Your task to perform on an android device: clear history in the chrome app Image 0: 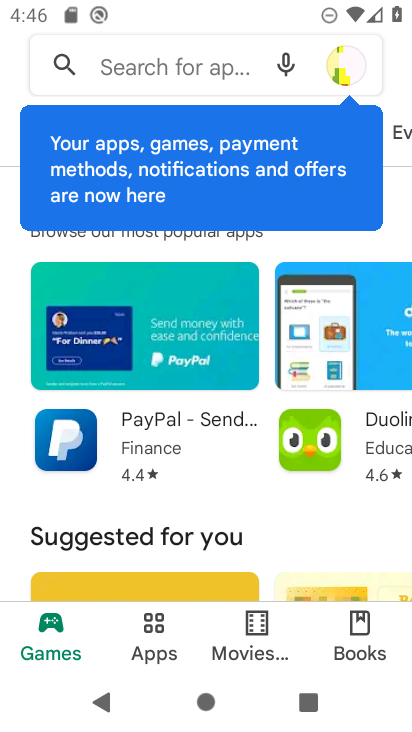
Step 0: press home button
Your task to perform on an android device: clear history in the chrome app Image 1: 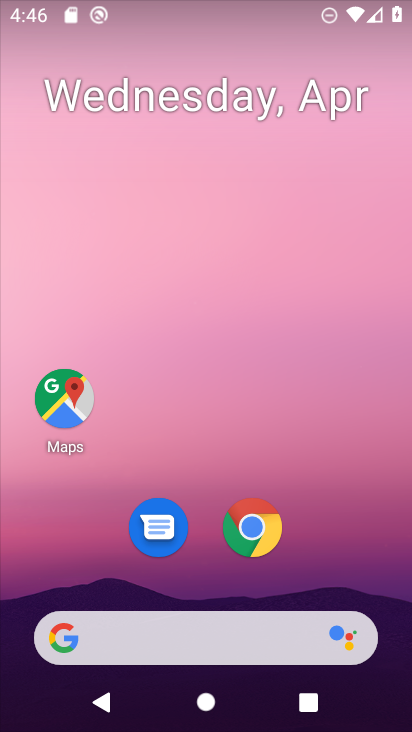
Step 1: click (257, 537)
Your task to perform on an android device: clear history in the chrome app Image 2: 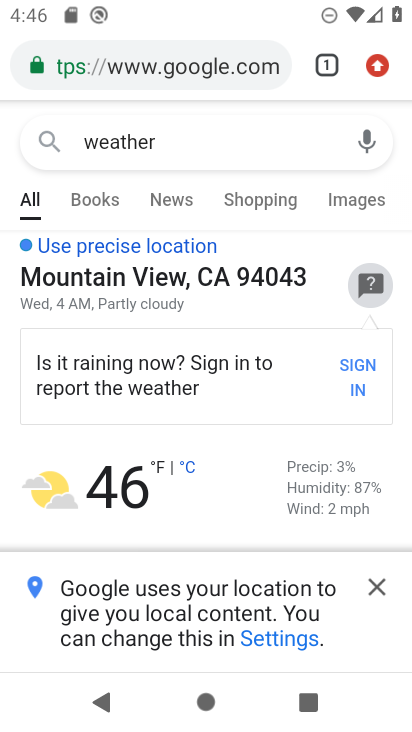
Step 2: click (376, 70)
Your task to perform on an android device: clear history in the chrome app Image 3: 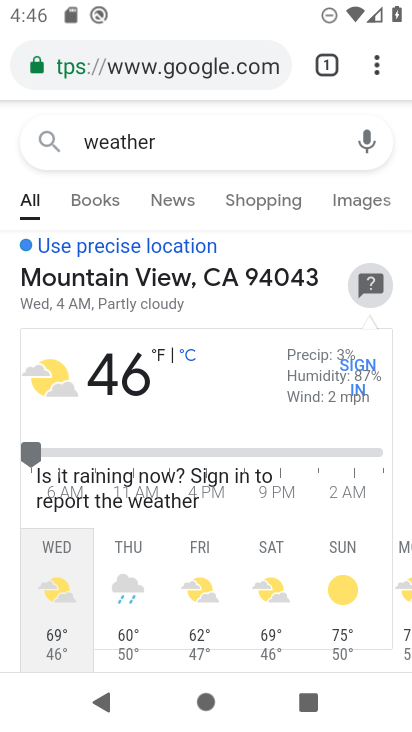
Step 3: click (377, 61)
Your task to perform on an android device: clear history in the chrome app Image 4: 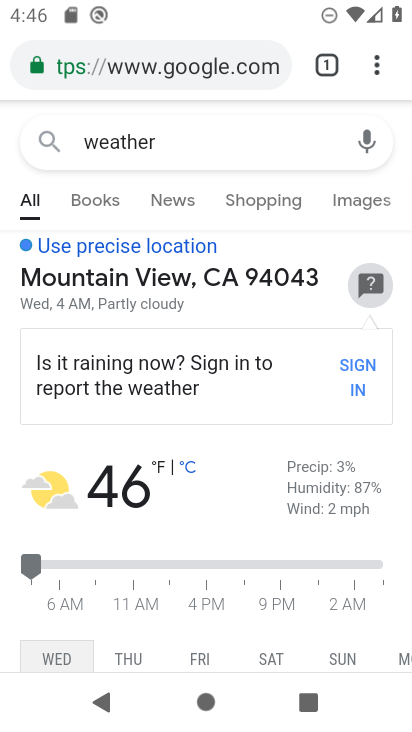
Step 4: click (378, 67)
Your task to perform on an android device: clear history in the chrome app Image 5: 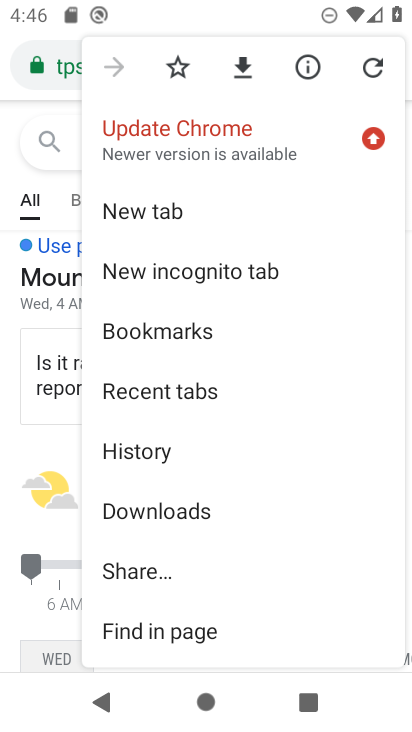
Step 5: click (118, 447)
Your task to perform on an android device: clear history in the chrome app Image 6: 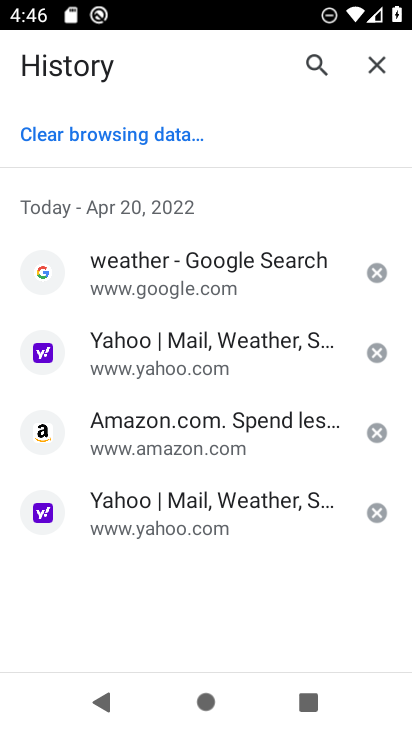
Step 6: click (45, 131)
Your task to perform on an android device: clear history in the chrome app Image 7: 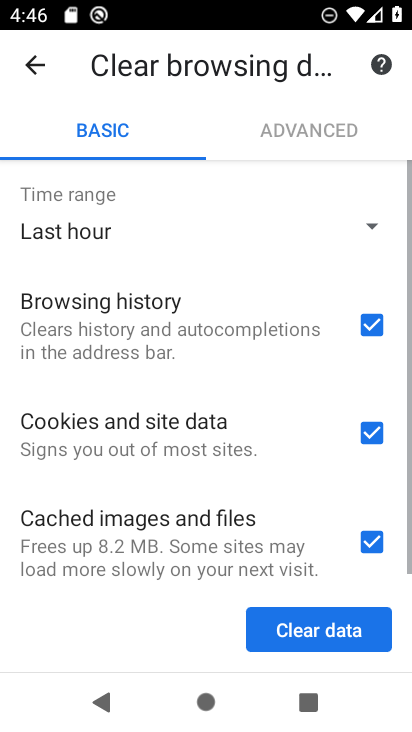
Step 7: click (357, 435)
Your task to perform on an android device: clear history in the chrome app Image 8: 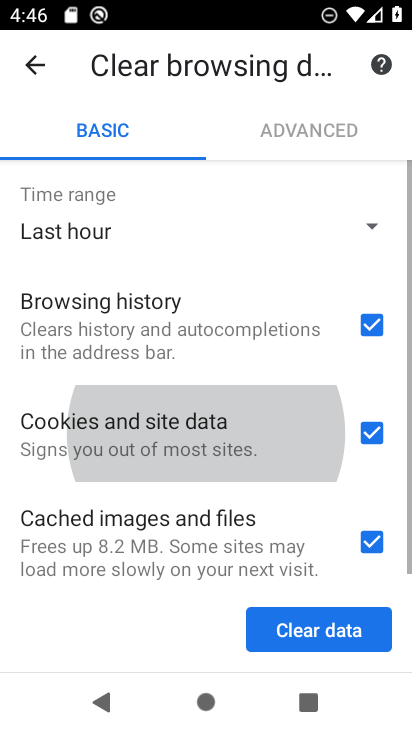
Step 8: click (379, 541)
Your task to perform on an android device: clear history in the chrome app Image 9: 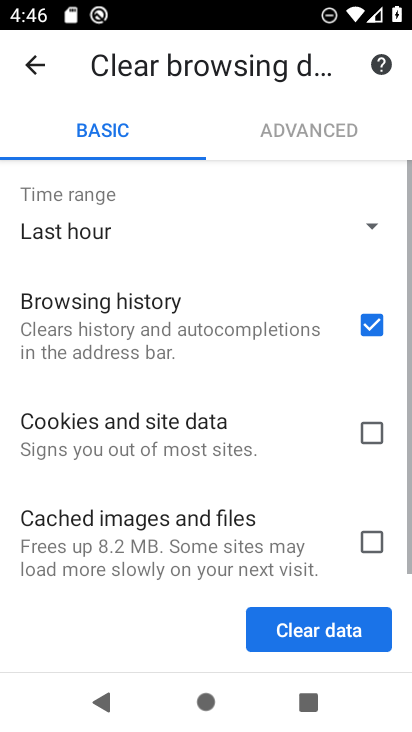
Step 9: drag from (106, 510) to (104, 284)
Your task to perform on an android device: clear history in the chrome app Image 10: 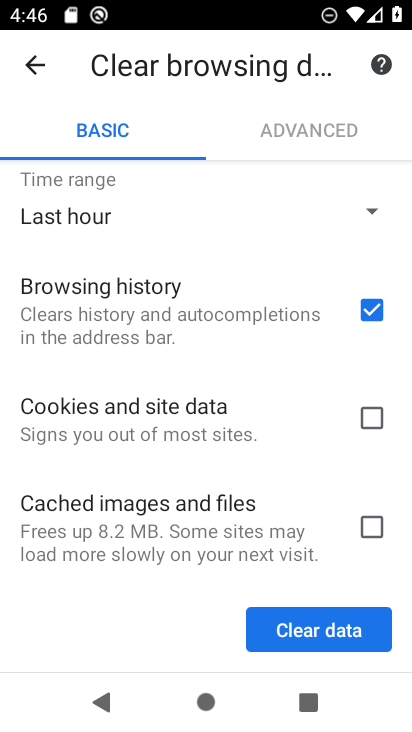
Step 10: click (309, 643)
Your task to perform on an android device: clear history in the chrome app Image 11: 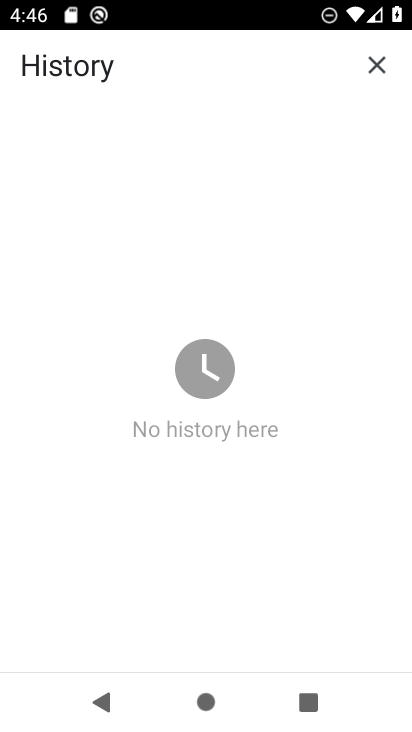
Step 11: task complete